Your task to perform on an android device: Go to Google maps Image 0: 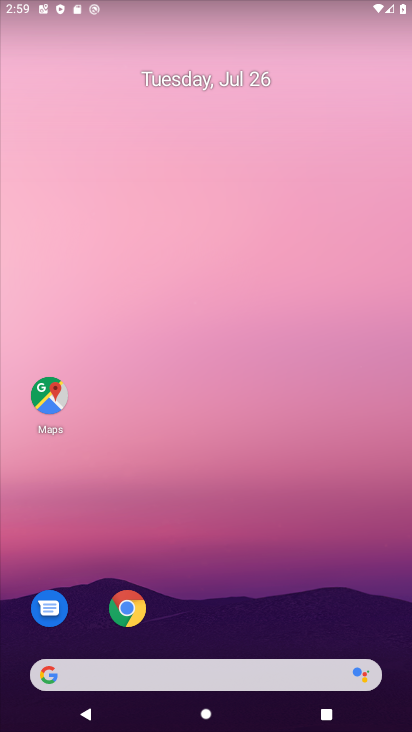
Step 0: drag from (217, 638) to (248, 77)
Your task to perform on an android device: Go to Google maps Image 1: 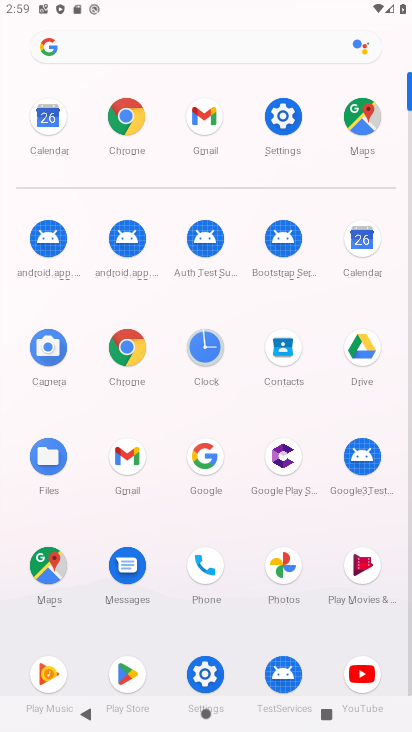
Step 1: click (61, 571)
Your task to perform on an android device: Go to Google maps Image 2: 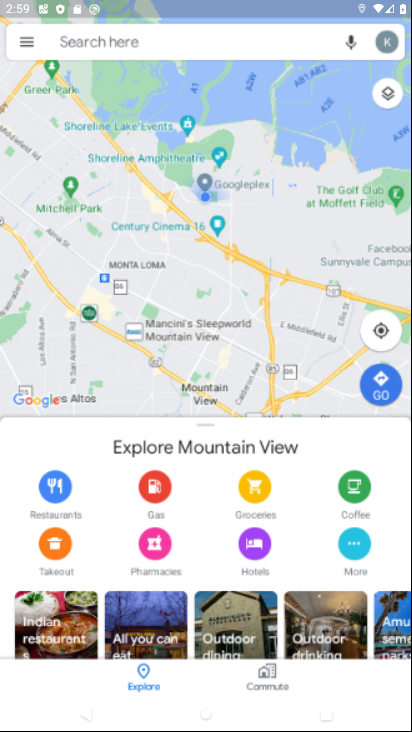
Step 2: task complete